Your task to perform on an android device: toggle sleep mode Image 0: 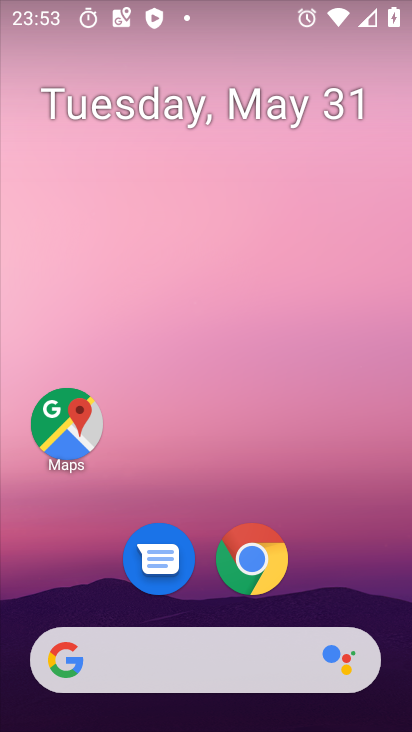
Step 0: drag from (326, 560) to (317, 133)
Your task to perform on an android device: toggle sleep mode Image 1: 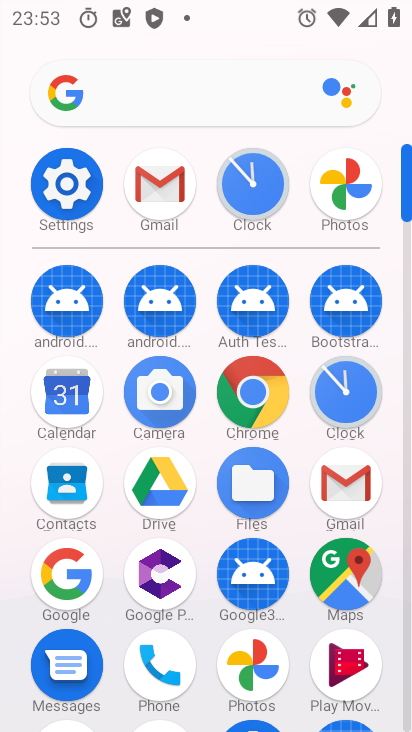
Step 1: click (66, 184)
Your task to perform on an android device: toggle sleep mode Image 2: 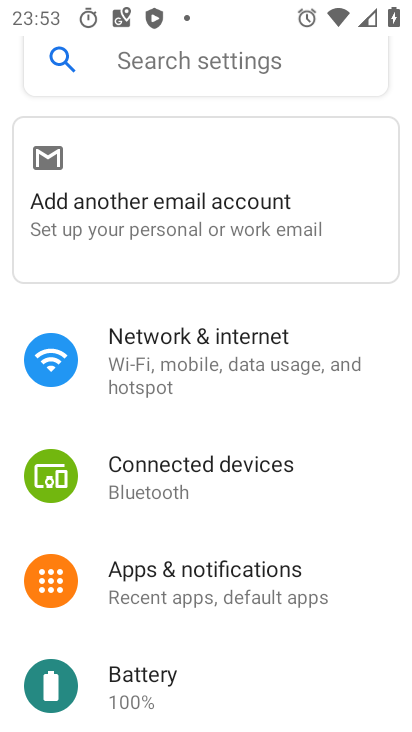
Step 2: drag from (256, 558) to (254, 257)
Your task to perform on an android device: toggle sleep mode Image 3: 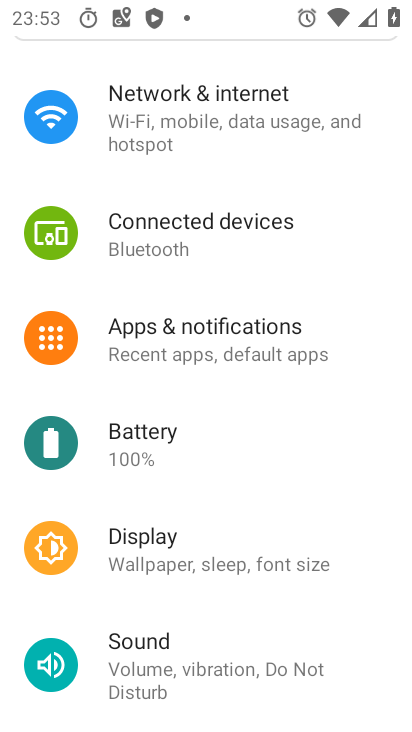
Step 3: click (196, 561)
Your task to perform on an android device: toggle sleep mode Image 4: 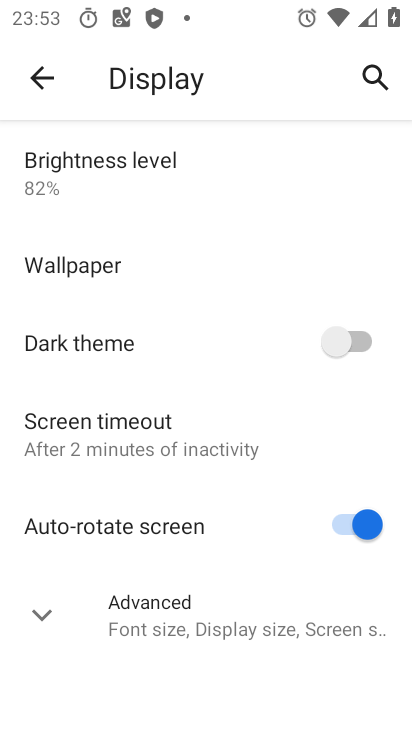
Step 4: click (104, 432)
Your task to perform on an android device: toggle sleep mode Image 5: 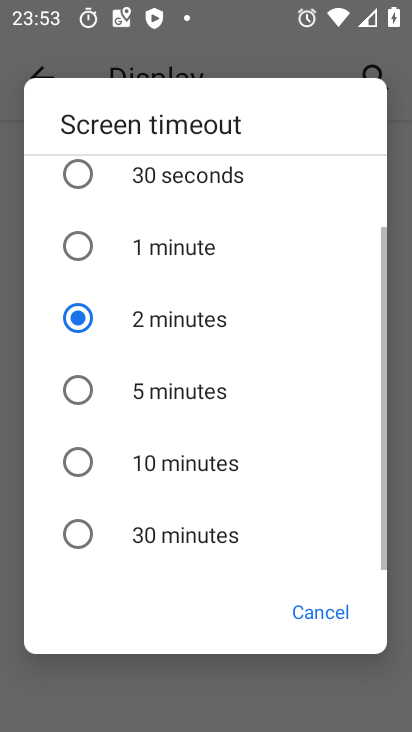
Step 5: click (91, 387)
Your task to perform on an android device: toggle sleep mode Image 6: 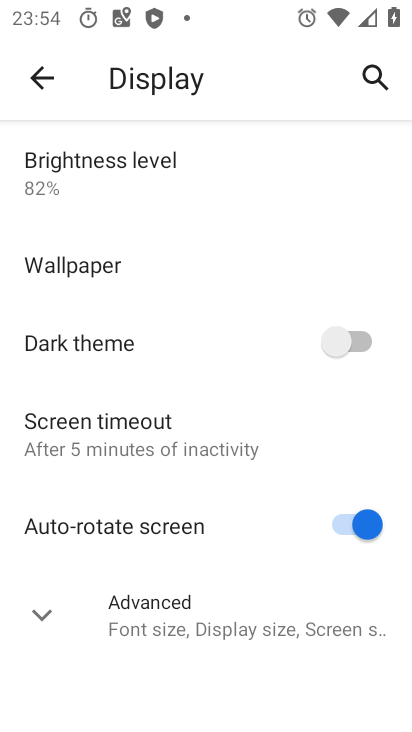
Step 6: task complete